Your task to perform on an android device: Go to accessibility settings Image 0: 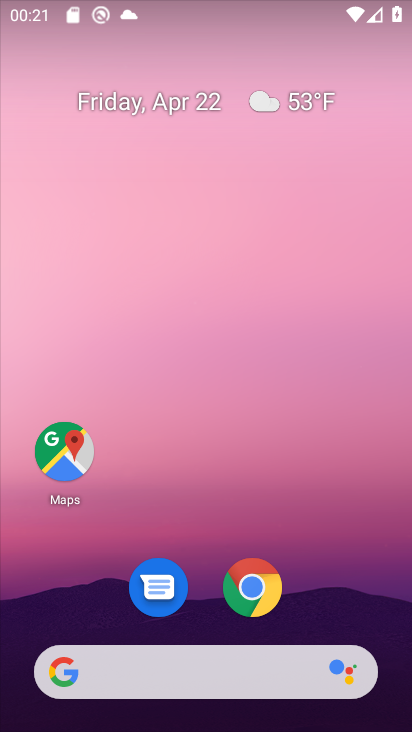
Step 0: drag from (329, 591) to (312, 205)
Your task to perform on an android device: Go to accessibility settings Image 1: 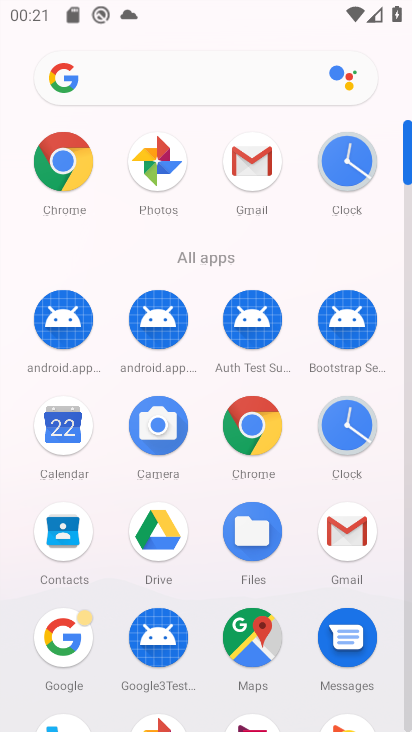
Step 1: drag from (215, 602) to (212, 243)
Your task to perform on an android device: Go to accessibility settings Image 2: 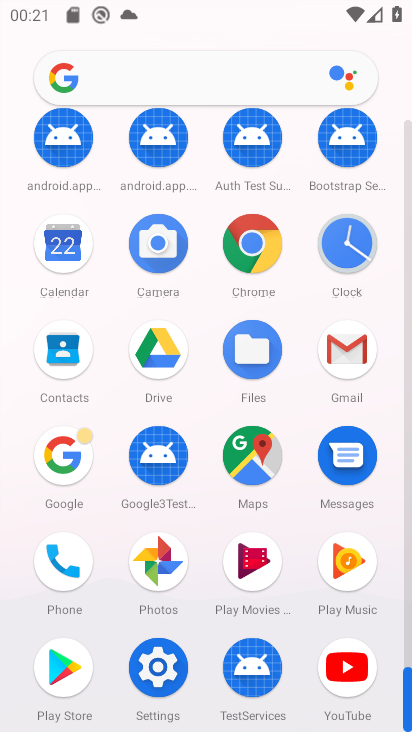
Step 2: click (149, 668)
Your task to perform on an android device: Go to accessibility settings Image 3: 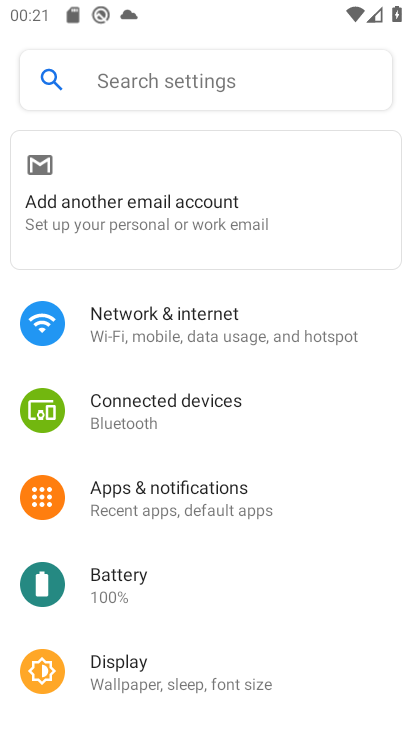
Step 3: drag from (189, 676) to (188, 316)
Your task to perform on an android device: Go to accessibility settings Image 4: 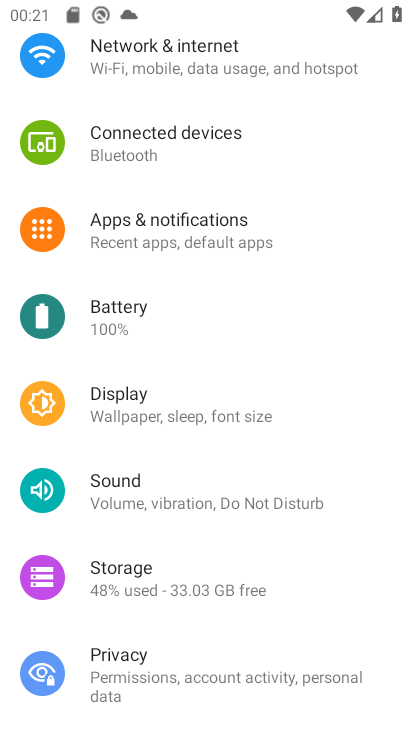
Step 4: drag from (187, 662) to (195, 364)
Your task to perform on an android device: Go to accessibility settings Image 5: 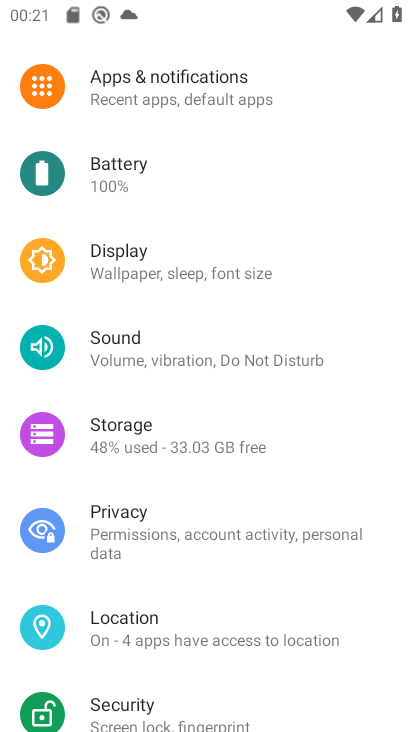
Step 5: drag from (223, 654) to (230, 382)
Your task to perform on an android device: Go to accessibility settings Image 6: 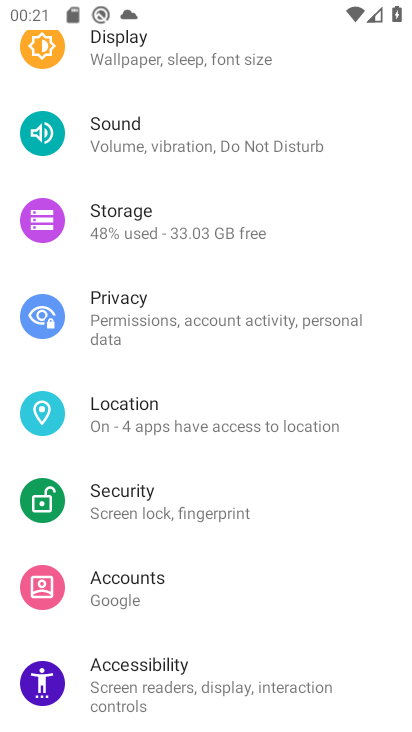
Step 6: click (193, 693)
Your task to perform on an android device: Go to accessibility settings Image 7: 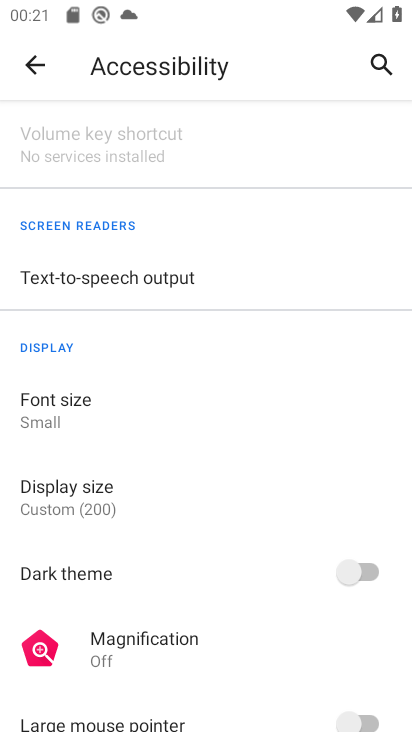
Step 7: task complete